Your task to perform on an android device: open device folders in google photos Image 0: 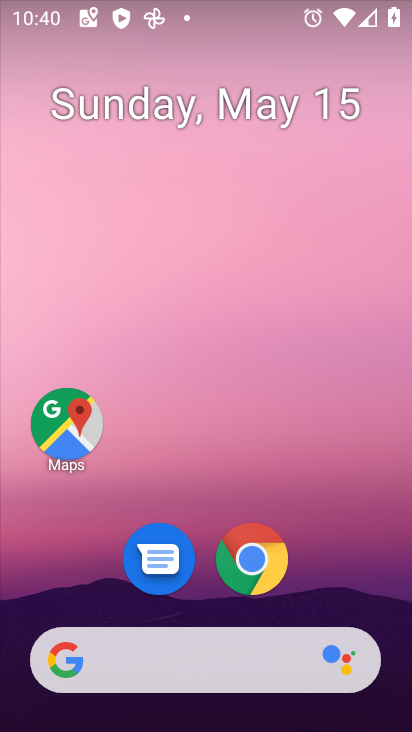
Step 0: drag from (333, 587) to (384, 158)
Your task to perform on an android device: open device folders in google photos Image 1: 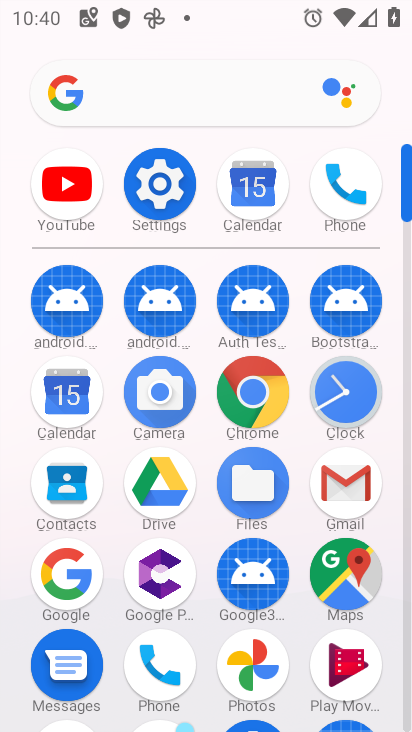
Step 1: click (266, 649)
Your task to perform on an android device: open device folders in google photos Image 2: 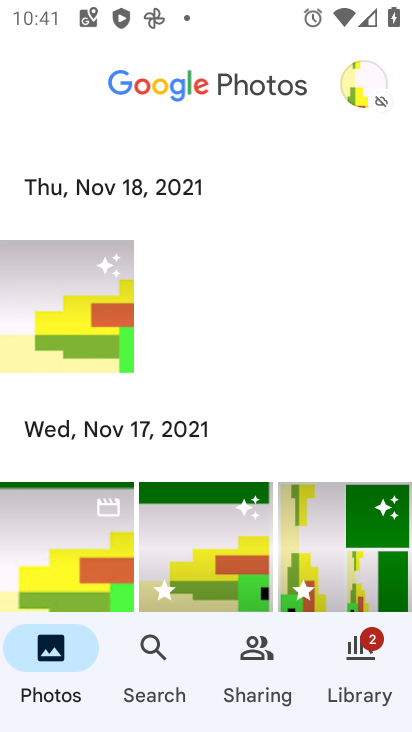
Step 2: click (351, 99)
Your task to perform on an android device: open device folders in google photos Image 3: 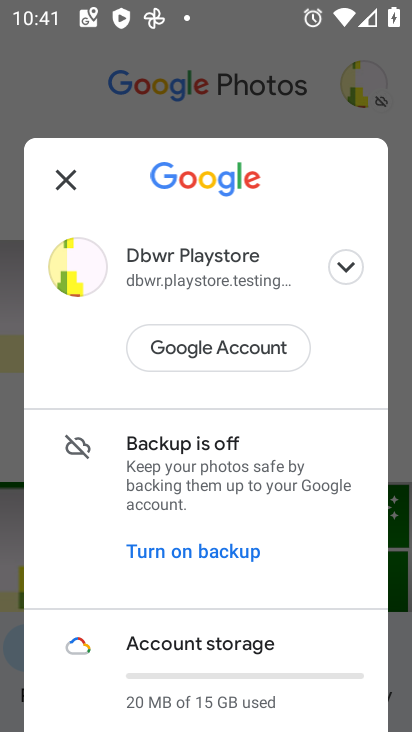
Step 3: click (66, 164)
Your task to perform on an android device: open device folders in google photos Image 4: 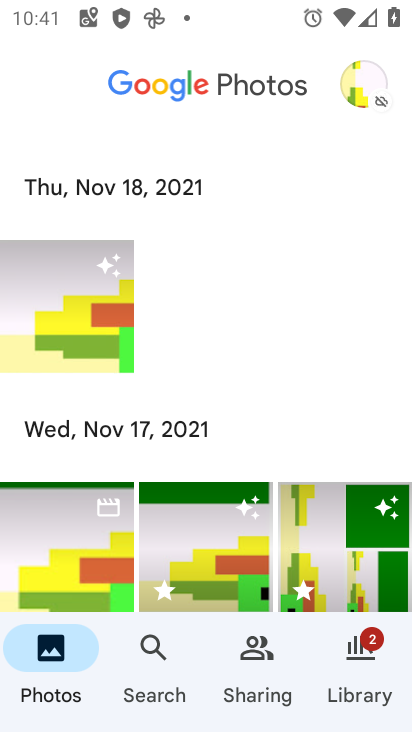
Step 4: click (366, 678)
Your task to perform on an android device: open device folders in google photos Image 5: 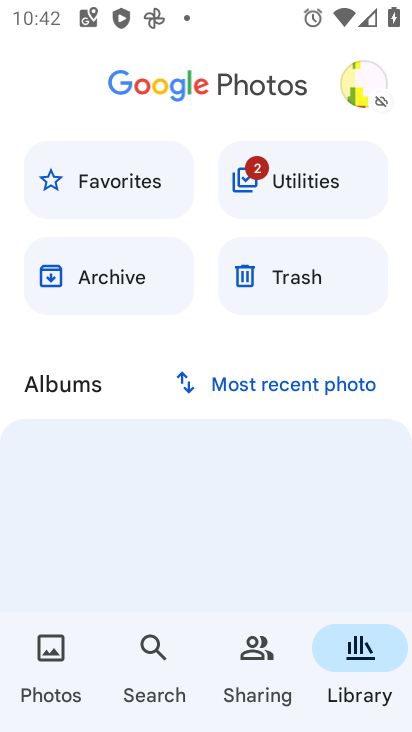
Step 5: drag from (223, 522) to (252, 182)
Your task to perform on an android device: open device folders in google photos Image 6: 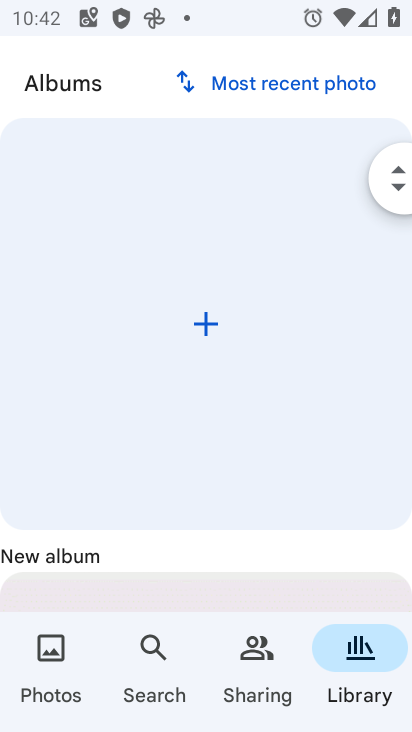
Step 6: click (399, 190)
Your task to perform on an android device: open device folders in google photos Image 7: 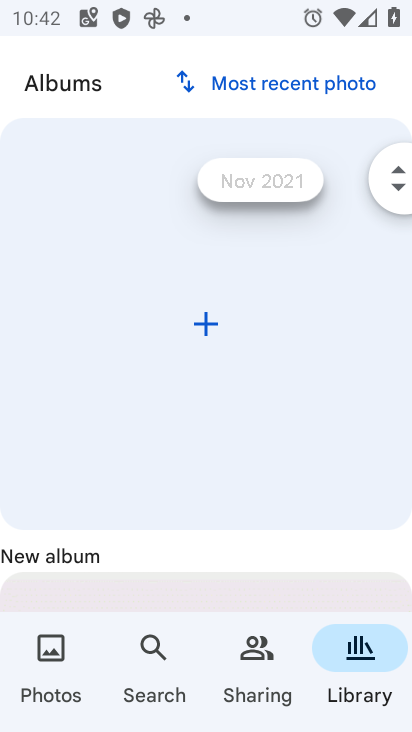
Step 7: task complete